Your task to perform on an android device: Toggle the flashlight Image 0: 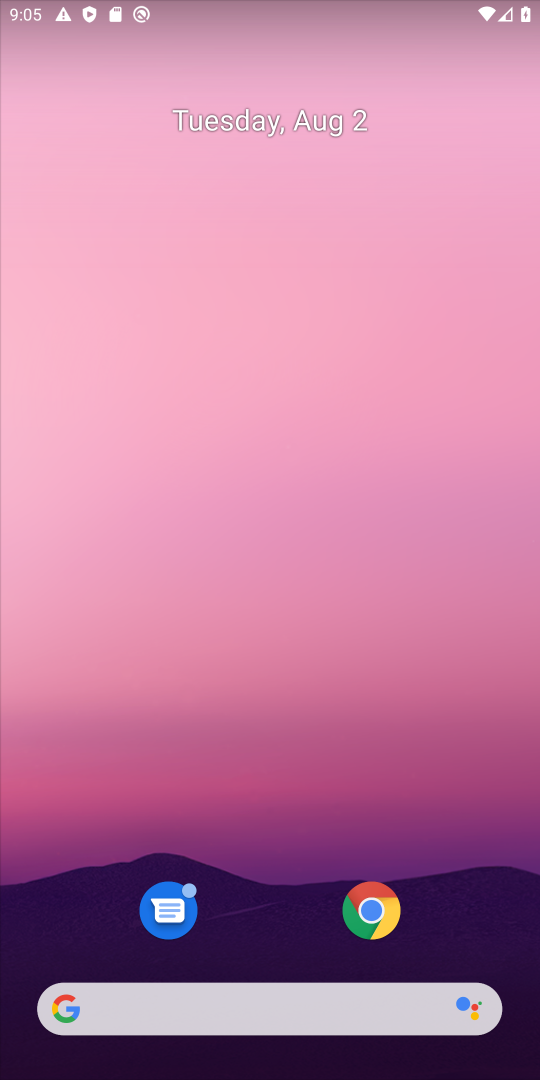
Step 0: drag from (228, 966) to (303, 252)
Your task to perform on an android device: Toggle the flashlight Image 1: 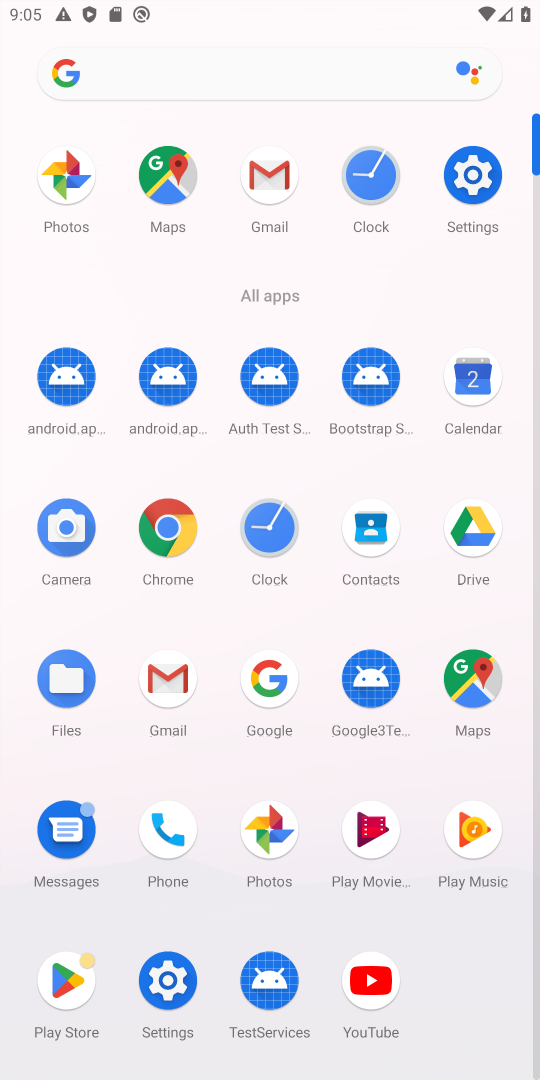
Step 1: click (482, 176)
Your task to perform on an android device: Toggle the flashlight Image 2: 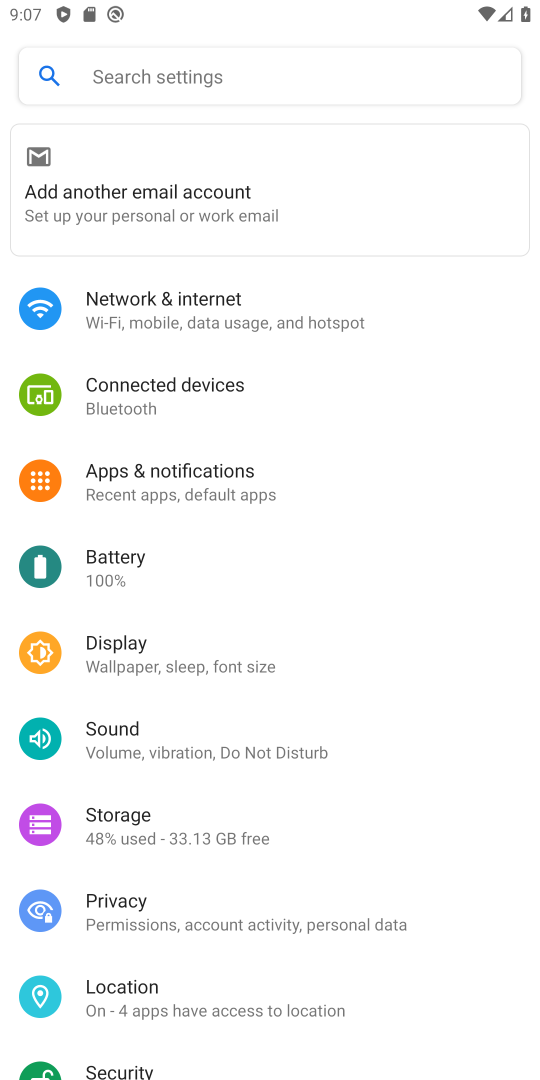
Step 2: task complete